Your task to perform on an android device: Open the map Image 0: 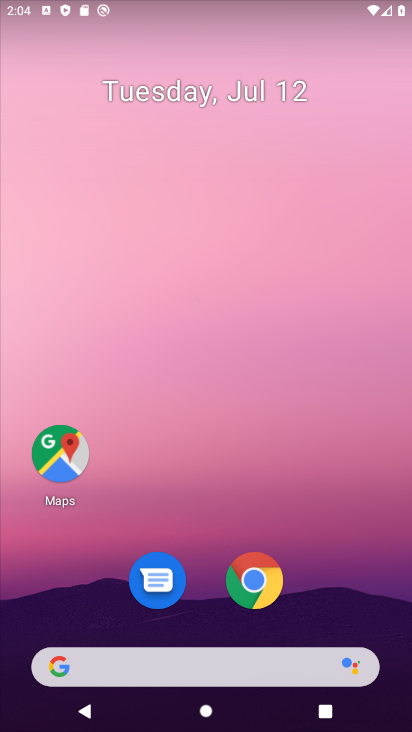
Step 0: click (67, 439)
Your task to perform on an android device: Open the map Image 1: 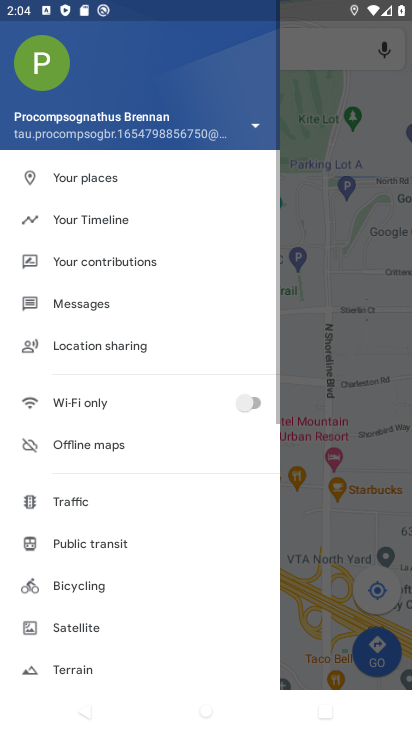
Step 1: click (70, 462)
Your task to perform on an android device: Open the map Image 2: 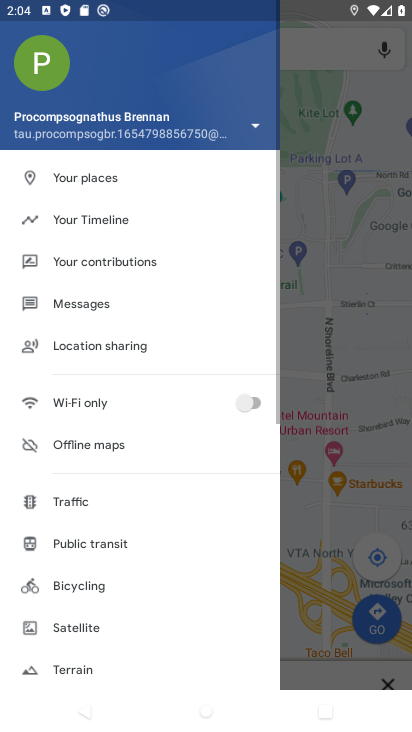
Step 2: click (380, 310)
Your task to perform on an android device: Open the map Image 3: 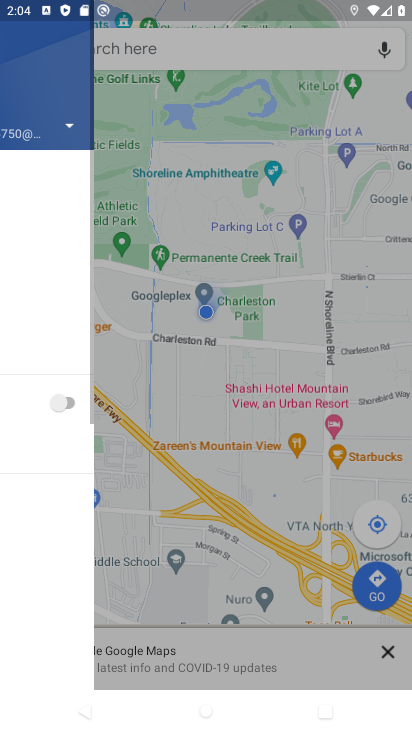
Step 3: click (380, 310)
Your task to perform on an android device: Open the map Image 4: 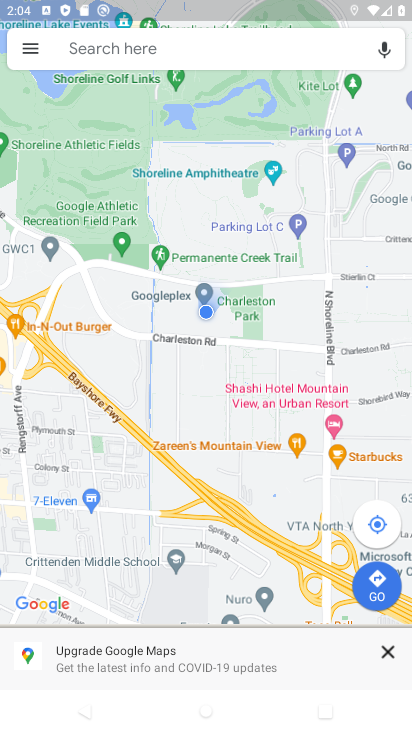
Step 4: click (380, 310)
Your task to perform on an android device: Open the map Image 5: 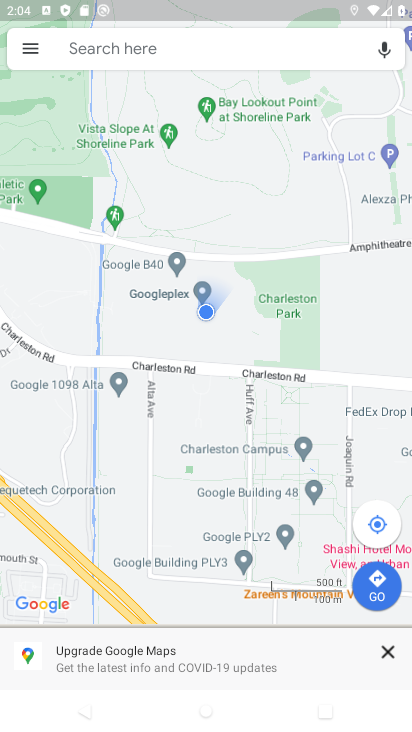
Step 5: task complete